Your task to perform on an android device: turn off notifications in google photos Image 0: 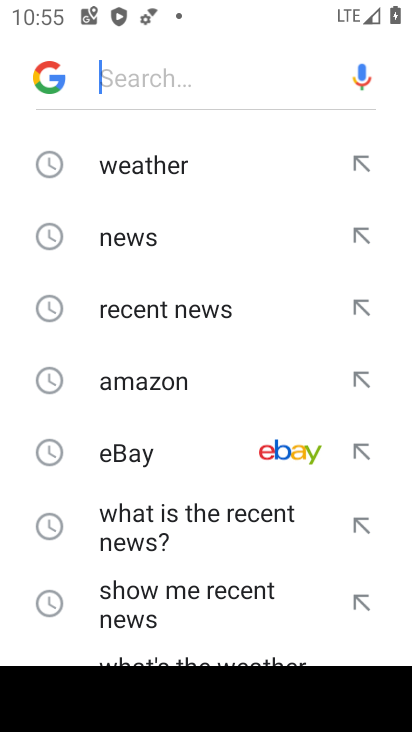
Step 0: press back button
Your task to perform on an android device: turn off notifications in google photos Image 1: 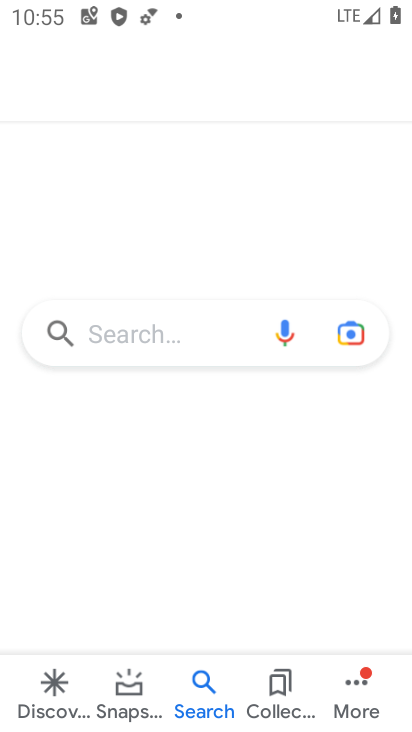
Step 1: press back button
Your task to perform on an android device: turn off notifications in google photos Image 2: 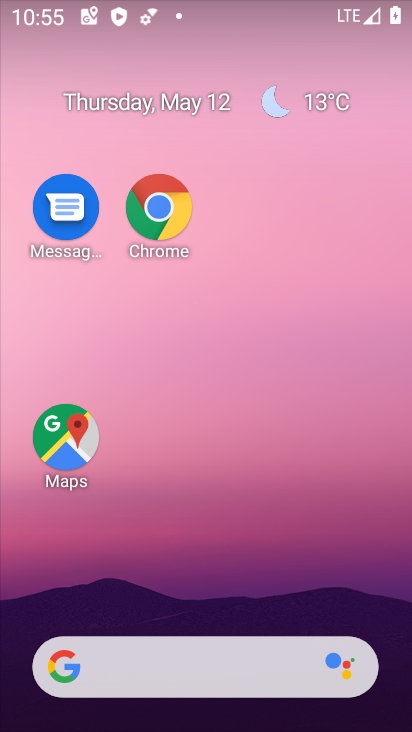
Step 2: drag from (194, 625) to (128, 6)
Your task to perform on an android device: turn off notifications in google photos Image 3: 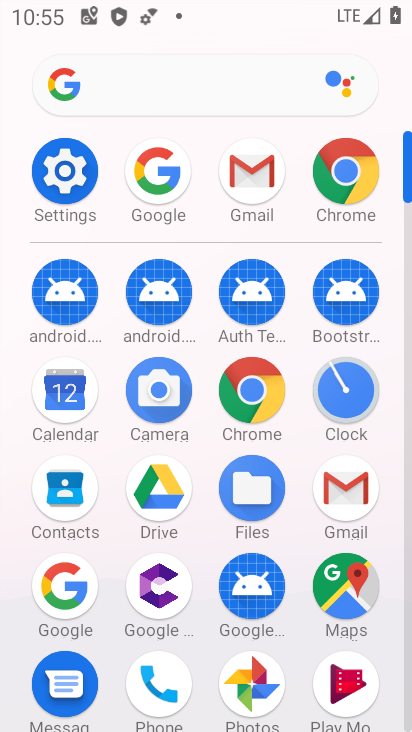
Step 3: click (67, 183)
Your task to perform on an android device: turn off notifications in google photos Image 4: 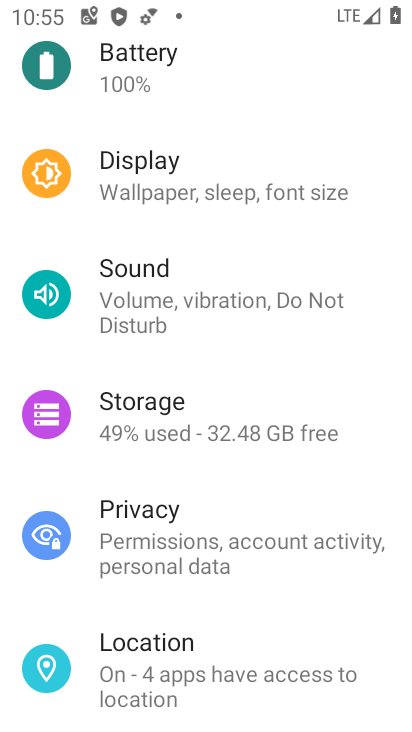
Step 4: press home button
Your task to perform on an android device: turn off notifications in google photos Image 5: 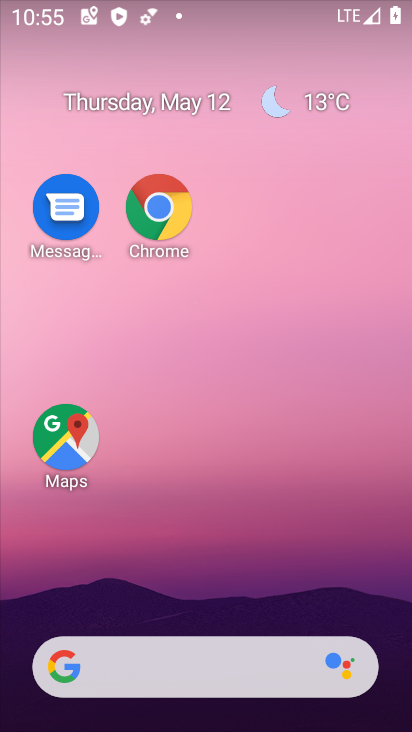
Step 5: drag from (208, 617) to (97, 0)
Your task to perform on an android device: turn off notifications in google photos Image 6: 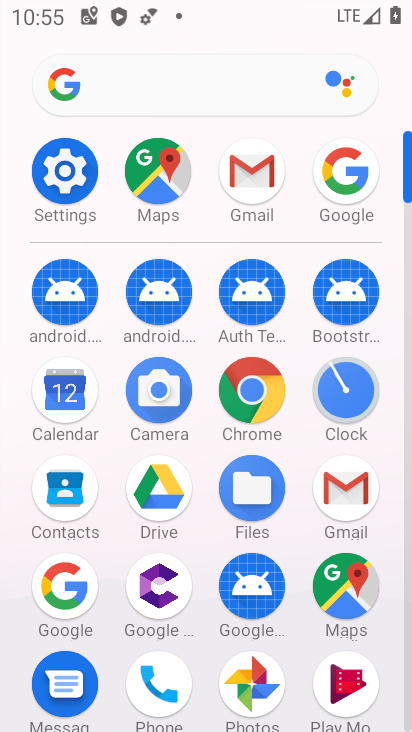
Step 6: click (74, 192)
Your task to perform on an android device: turn off notifications in google photos Image 7: 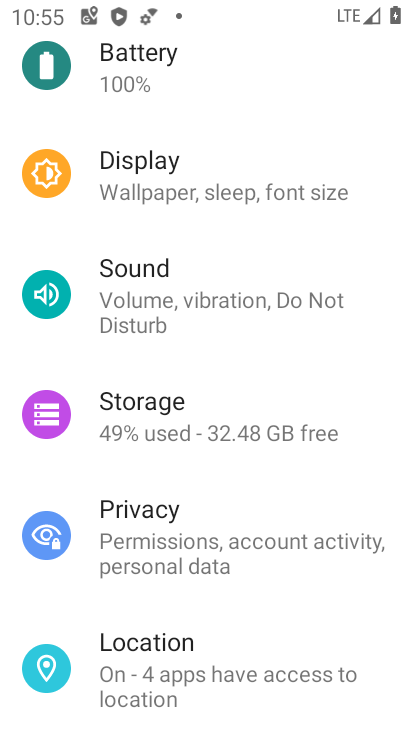
Step 7: press home button
Your task to perform on an android device: turn off notifications in google photos Image 8: 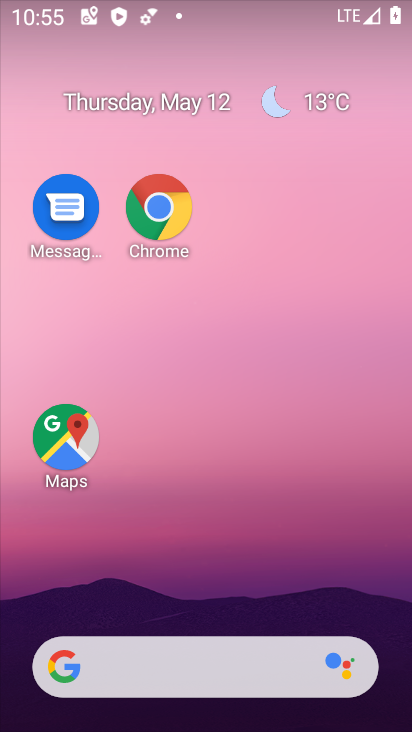
Step 8: drag from (243, 629) to (157, 7)
Your task to perform on an android device: turn off notifications in google photos Image 9: 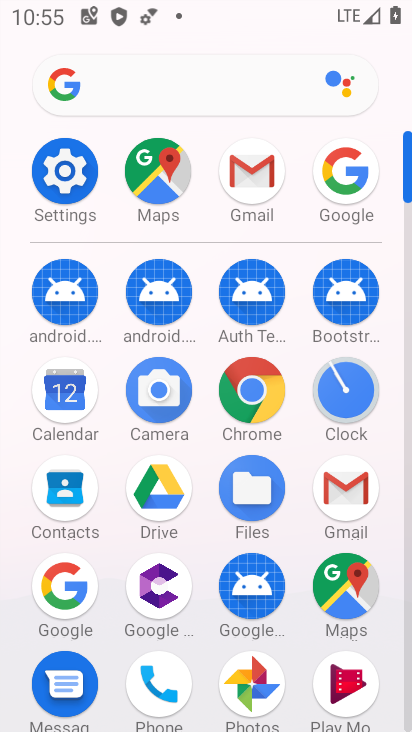
Step 9: click (233, 664)
Your task to perform on an android device: turn off notifications in google photos Image 10: 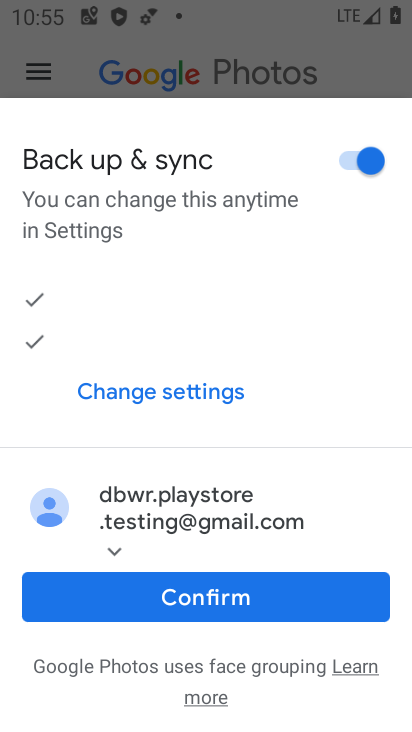
Step 10: click (38, 67)
Your task to perform on an android device: turn off notifications in google photos Image 11: 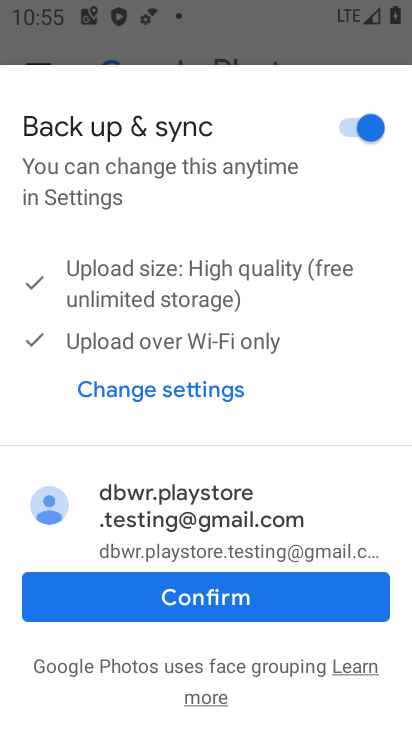
Step 11: click (240, 585)
Your task to perform on an android device: turn off notifications in google photos Image 12: 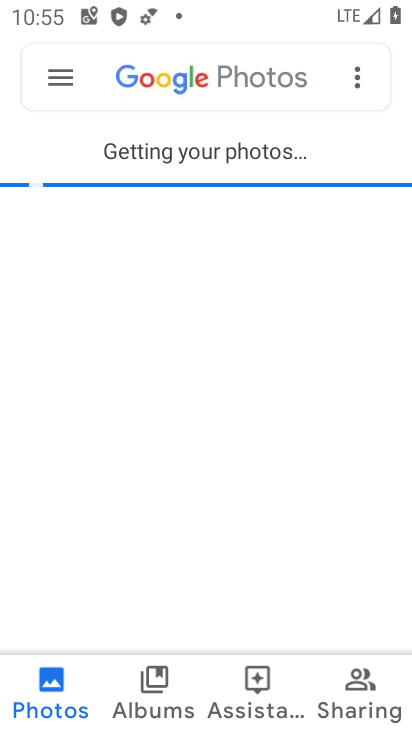
Step 12: click (32, 72)
Your task to perform on an android device: turn off notifications in google photos Image 13: 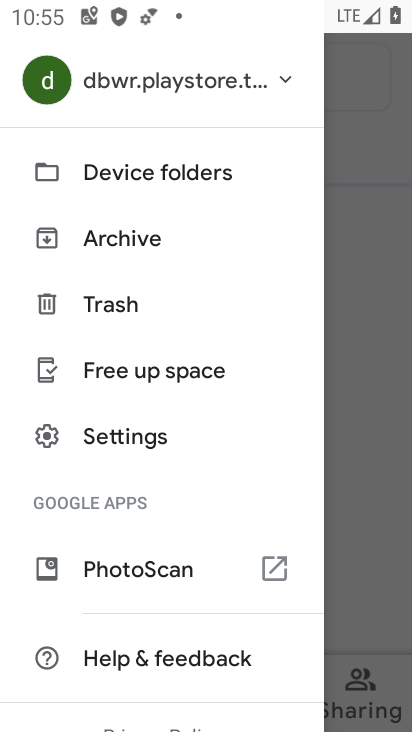
Step 13: click (181, 436)
Your task to perform on an android device: turn off notifications in google photos Image 14: 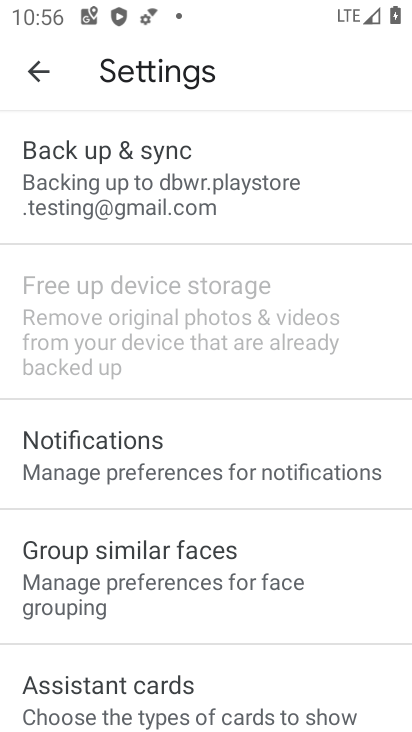
Step 14: drag from (103, 199) to (84, 48)
Your task to perform on an android device: turn off notifications in google photos Image 15: 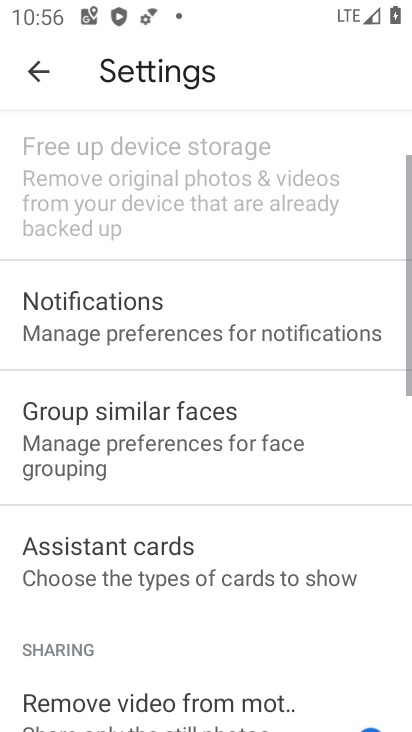
Step 15: click (120, 332)
Your task to perform on an android device: turn off notifications in google photos Image 16: 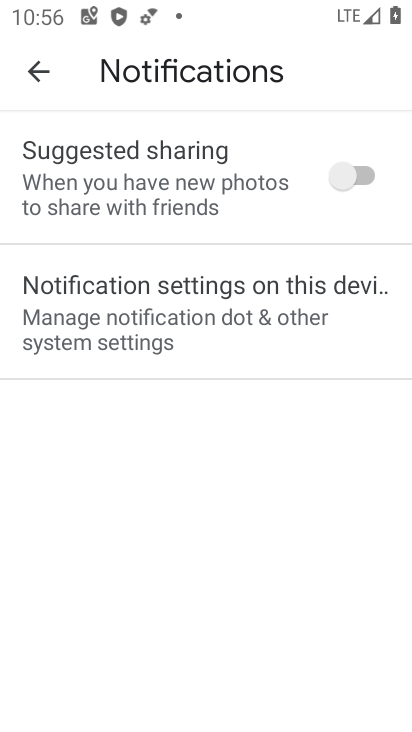
Step 16: click (192, 291)
Your task to perform on an android device: turn off notifications in google photos Image 17: 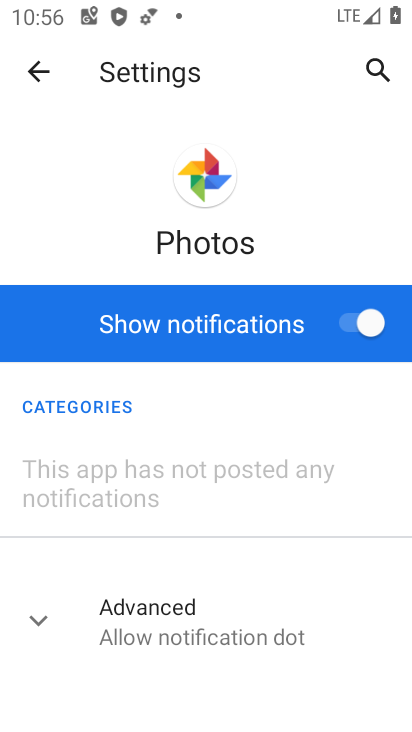
Step 17: click (360, 309)
Your task to perform on an android device: turn off notifications in google photos Image 18: 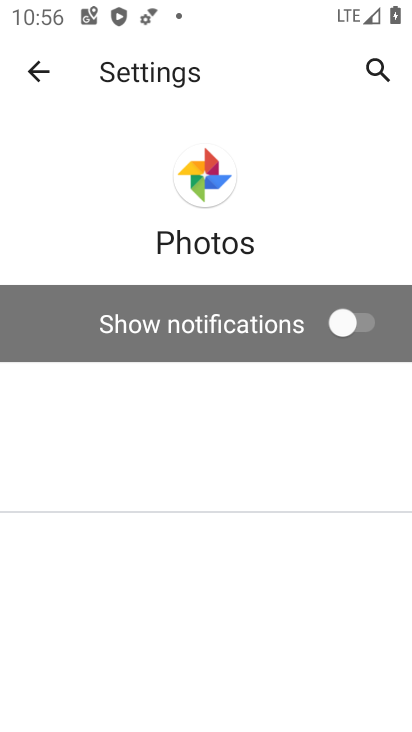
Step 18: task complete